Your task to perform on an android device: turn pop-ups on in chrome Image 0: 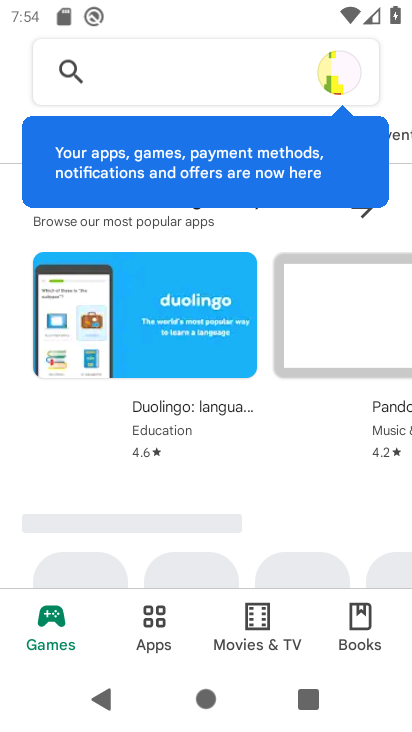
Step 0: press home button
Your task to perform on an android device: turn pop-ups on in chrome Image 1: 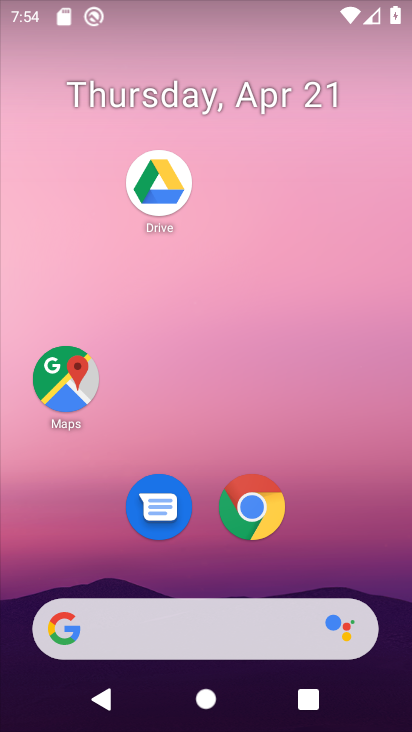
Step 1: drag from (363, 452) to (366, 74)
Your task to perform on an android device: turn pop-ups on in chrome Image 2: 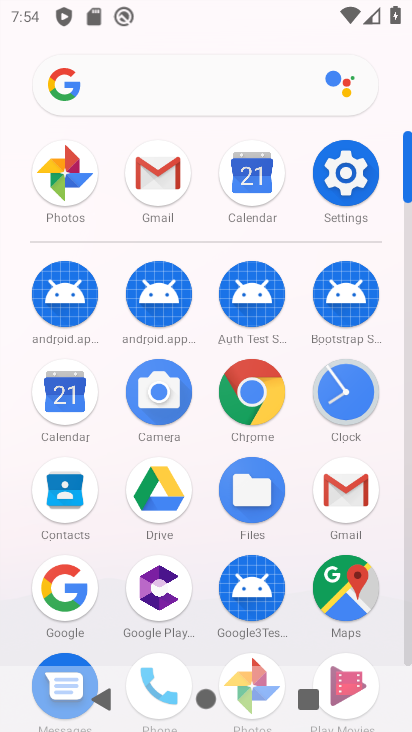
Step 2: click (264, 405)
Your task to perform on an android device: turn pop-ups on in chrome Image 3: 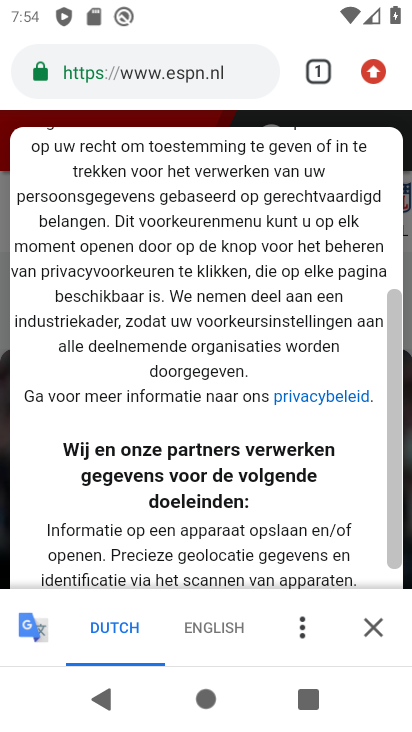
Step 3: click (368, 67)
Your task to perform on an android device: turn pop-ups on in chrome Image 4: 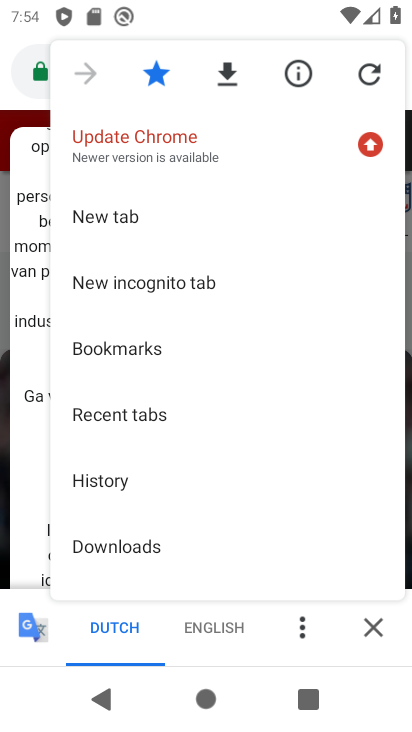
Step 4: drag from (272, 447) to (278, 291)
Your task to perform on an android device: turn pop-ups on in chrome Image 5: 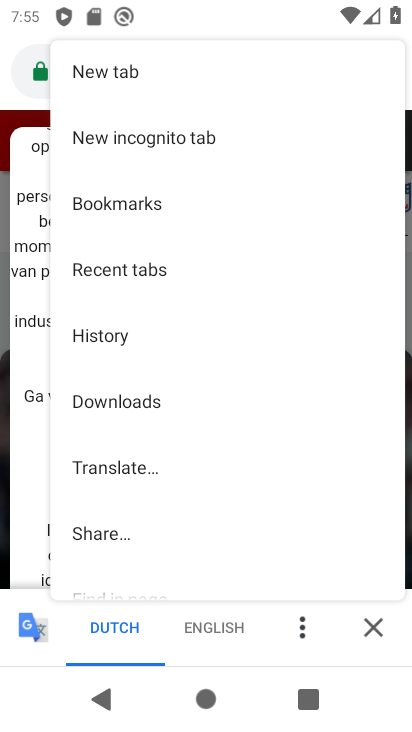
Step 5: drag from (283, 458) to (289, 308)
Your task to perform on an android device: turn pop-ups on in chrome Image 6: 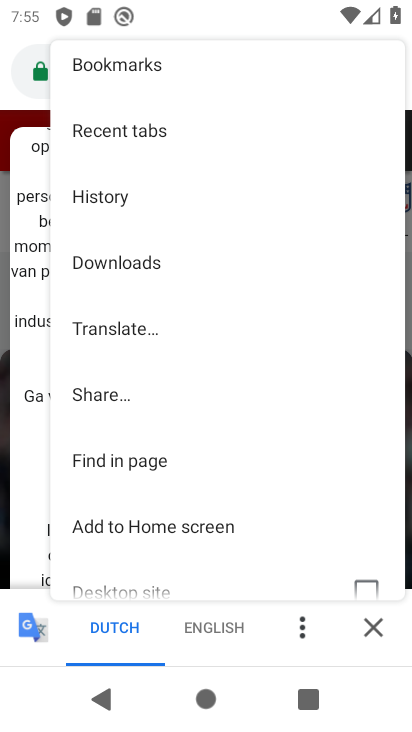
Step 6: drag from (283, 472) to (291, 308)
Your task to perform on an android device: turn pop-ups on in chrome Image 7: 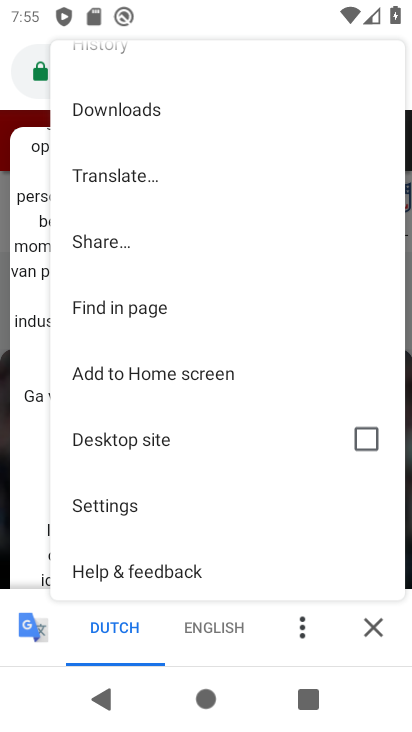
Step 7: drag from (288, 499) to (288, 364)
Your task to perform on an android device: turn pop-ups on in chrome Image 8: 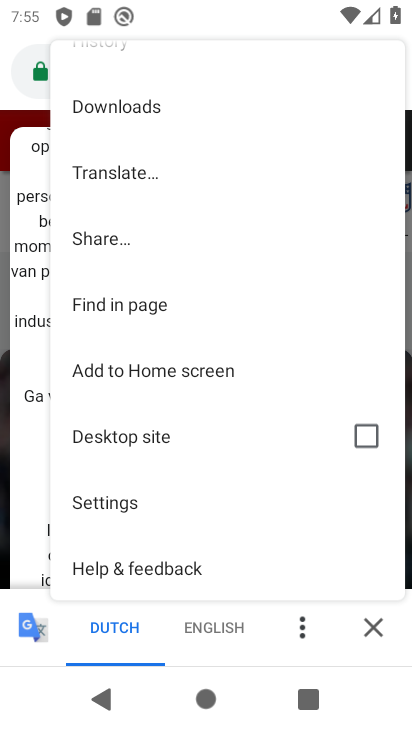
Step 8: click (135, 504)
Your task to perform on an android device: turn pop-ups on in chrome Image 9: 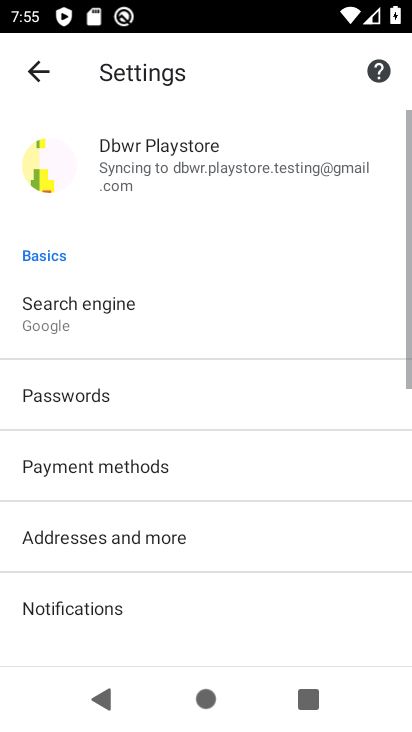
Step 9: drag from (294, 532) to (307, 405)
Your task to perform on an android device: turn pop-ups on in chrome Image 10: 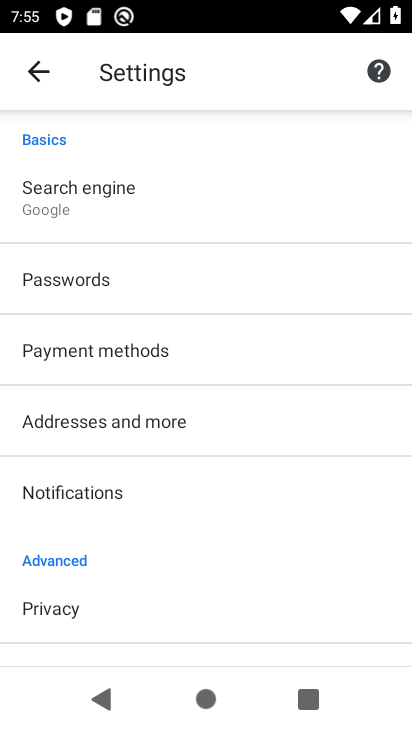
Step 10: drag from (308, 533) to (314, 417)
Your task to perform on an android device: turn pop-ups on in chrome Image 11: 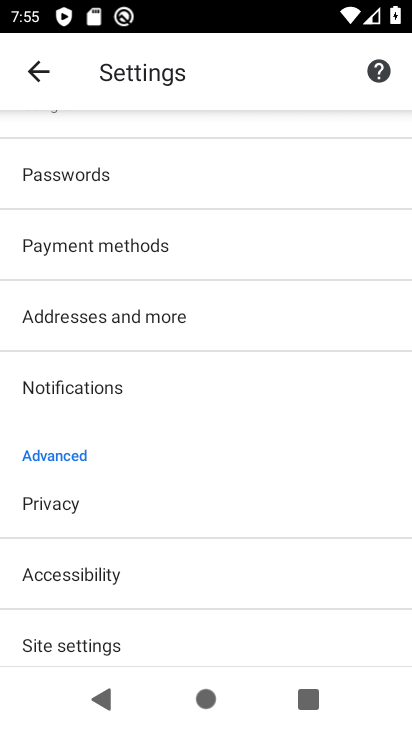
Step 11: drag from (322, 572) to (326, 452)
Your task to perform on an android device: turn pop-ups on in chrome Image 12: 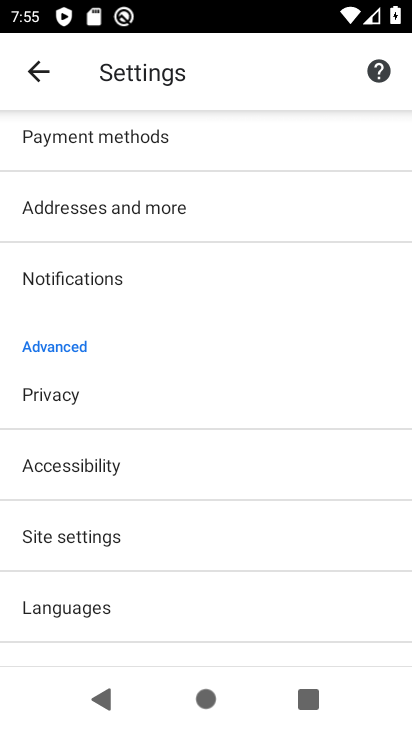
Step 12: drag from (320, 614) to (316, 505)
Your task to perform on an android device: turn pop-ups on in chrome Image 13: 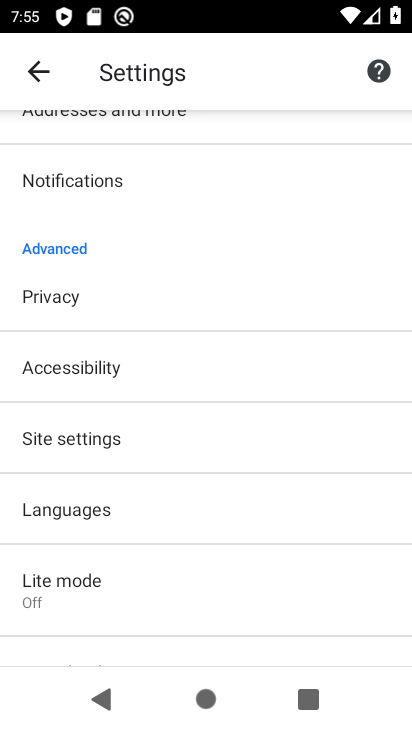
Step 13: drag from (320, 612) to (319, 498)
Your task to perform on an android device: turn pop-ups on in chrome Image 14: 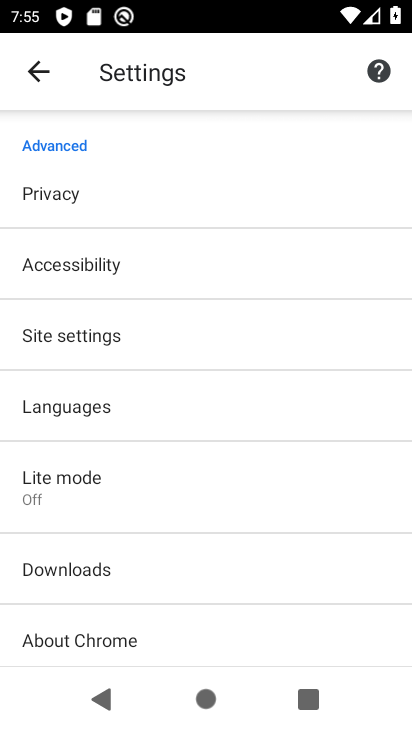
Step 14: drag from (315, 607) to (323, 495)
Your task to perform on an android device: turn pop-ups on in chrome Image 15: 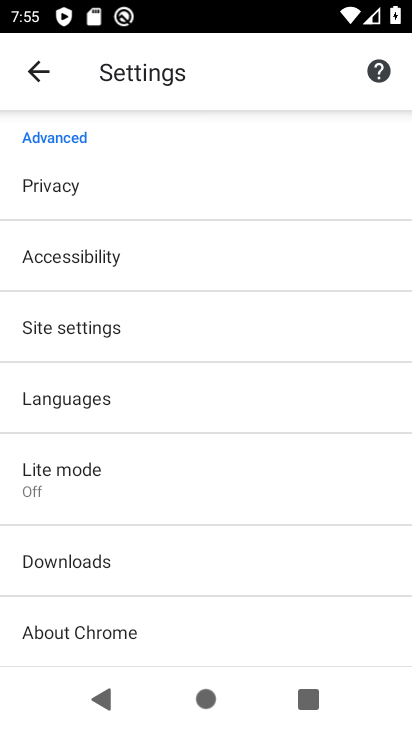
Step 15: drag from (330, 402) to (334, 505)
Your task to perform on an android device: turn pop-ups on in chrome Image 16: 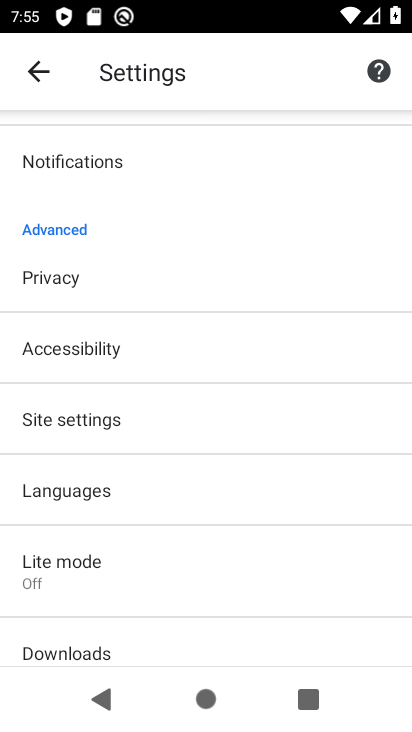
Step 16: drag from (330, 417) to (336, 495)
Your task to perform on an android device: turn pop-ups on in chrome Image 17: 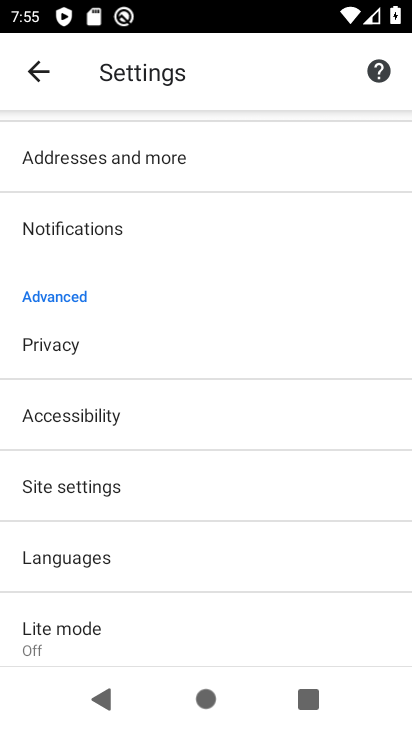
Step 17: click (330, 489)
Your task to perform on an android device: turn pop-ups on in chrome Image 18: 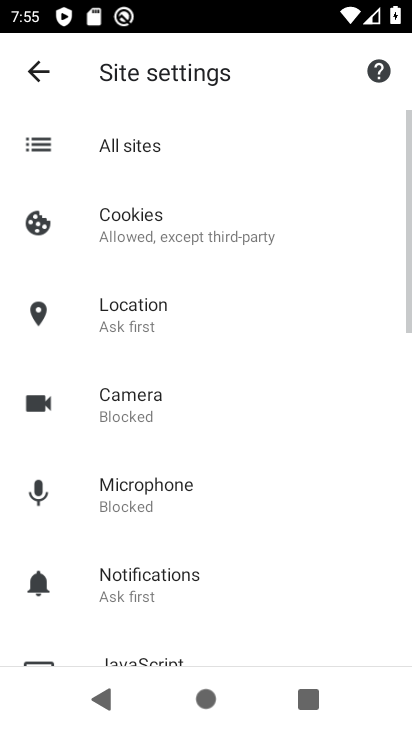
Step 18: drag from (336, 573) to (340, 469)
Your task to perform on an android device: turn pop-ups on in chrome Image 19: 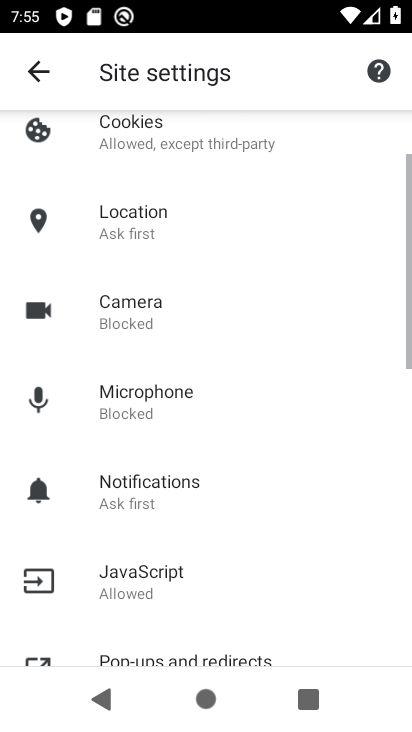
Step 19: drag from (344, 606) to (348, 470)
Your task to perform on an android device: turn pop-ups on in chrome Image 20: 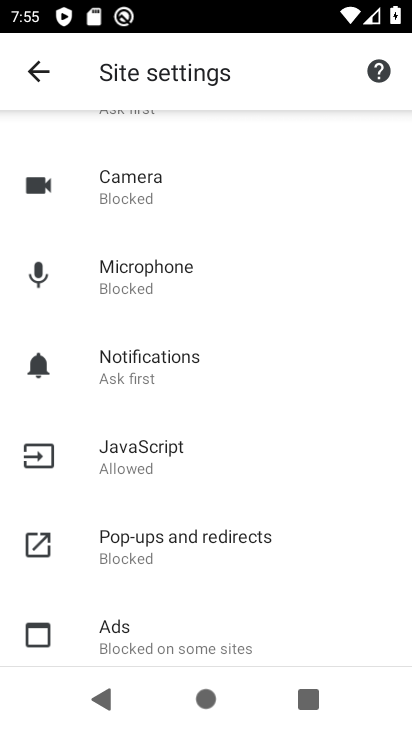
Step 20: drag from (347, 598) to (351, 479)
Your task to perform on an android device: turn pop-ups on in chrome Image 21: 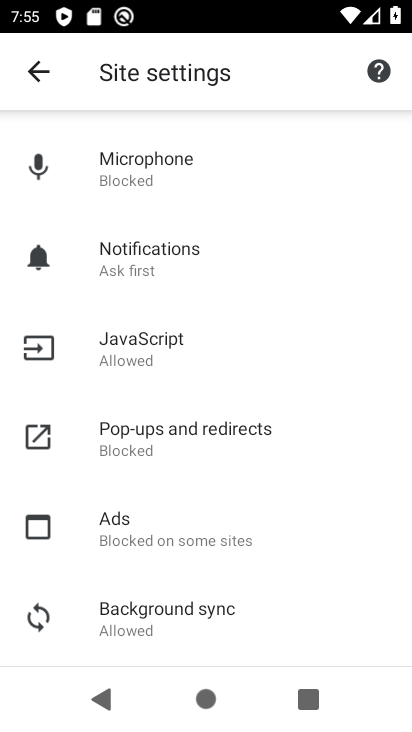
Step 21: drag from (347, 589) to (353, 477)
Your task to perform on an android device: turn pop-ups on in chrome Image 22: 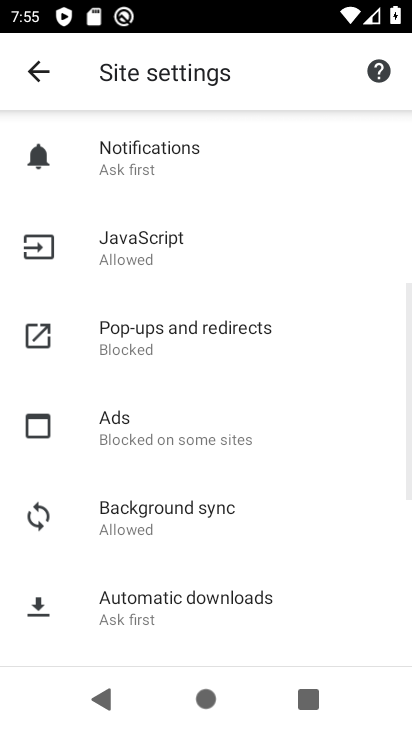
Step 22: drag from (339, 602) to (340, 489)
Your task to perform on an android device: turn pop-ups on in chrome Image 23: 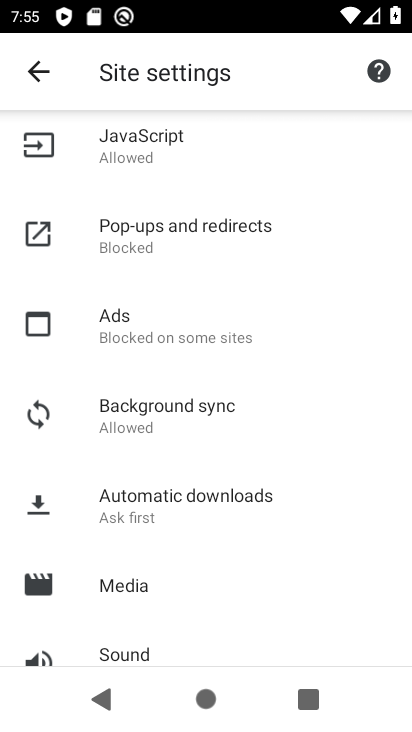
Step 23: click (231, 224)
Your task to perform on an android device: turn pop-ups on in chrome Image 24: 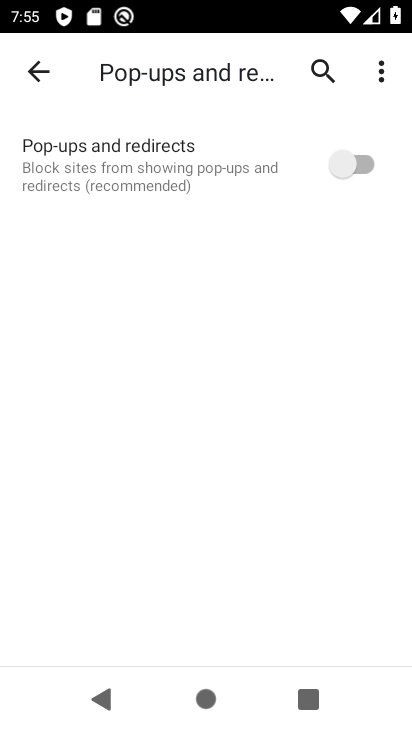
Step 24: click (350, 163)
Your task to perform on an android device: turn pop-ups on in chrome Image 25: 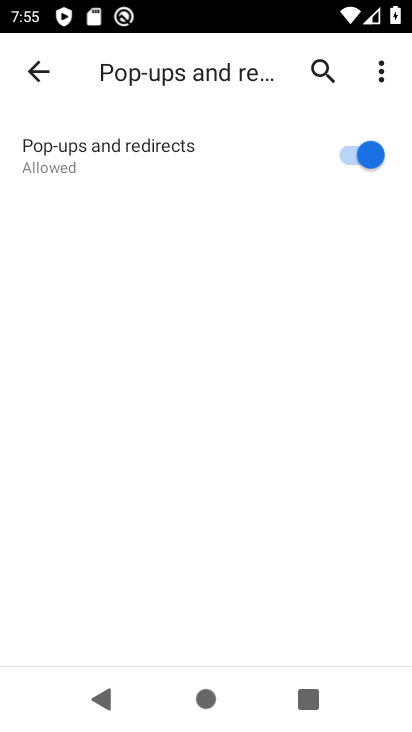
Step 25: task complete